Your task to perform on an android device: toggle priority inbox in the gmail app Image 0: 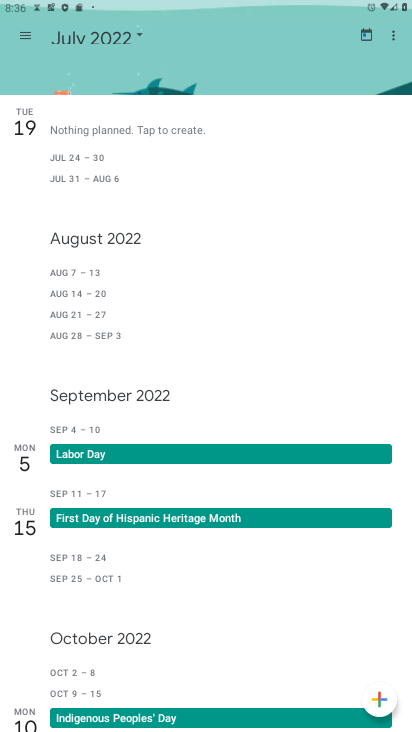
Step 0: drag from (348, 420) to (411, 112)
Your task to perform on an android device: toggle priority inbox in the gmail app Image 1: 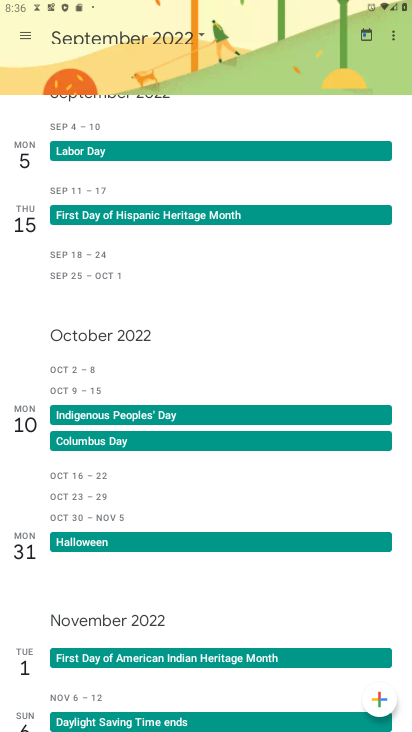
Step 1: press home button
Your task to perform on an android device: toggle priority inbox in the gmail app Image 2: 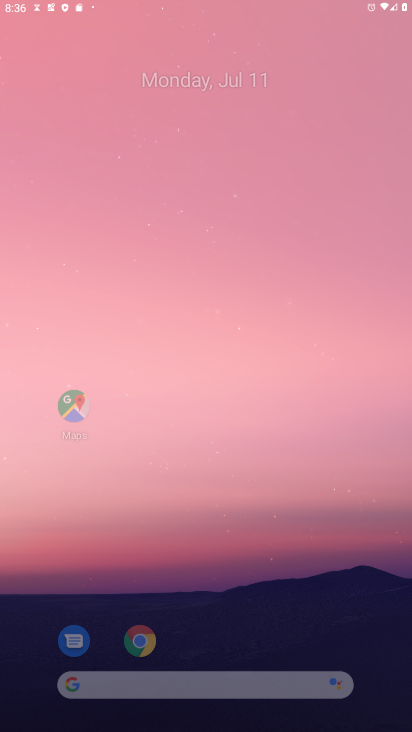
Step 2: drag from (247, 591) to (332, 408)
Your task to perform on an android device: toggle priority inbox in the gmail app Image 3: 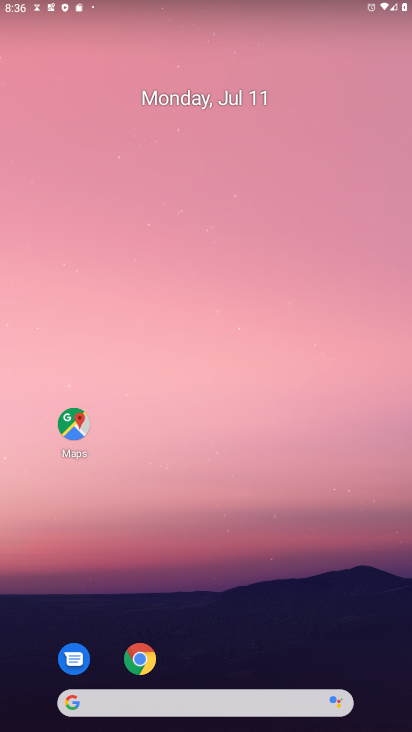
Step 3: drag from (238, 639) to (286, 116)
Your task to perform on an android device: toggle priority inbox in the gmail app Image 4: 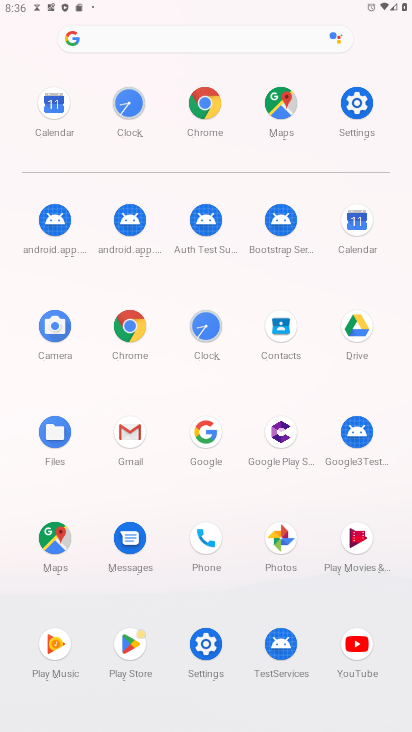
Step 4: click (128, 431)
Your task to perform on an android device: toggle priority inbox in the gmail app Image 5: 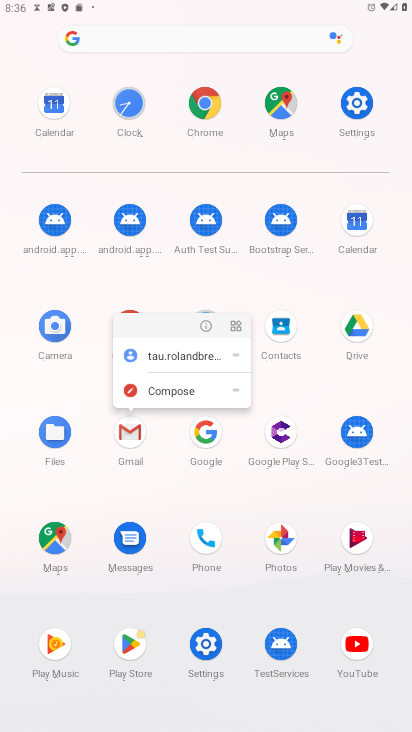
Step 5: click (204, 329)
Your task to perform on an android device: toggle priority inbox in the gmail app Image 6: 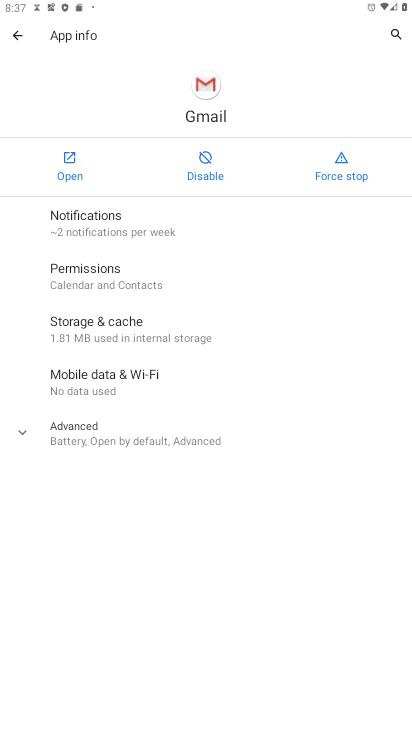
Step 6: click (66, 151)
Your task to perform on an android device: toggle priority inbox in the gmail app Image 7: 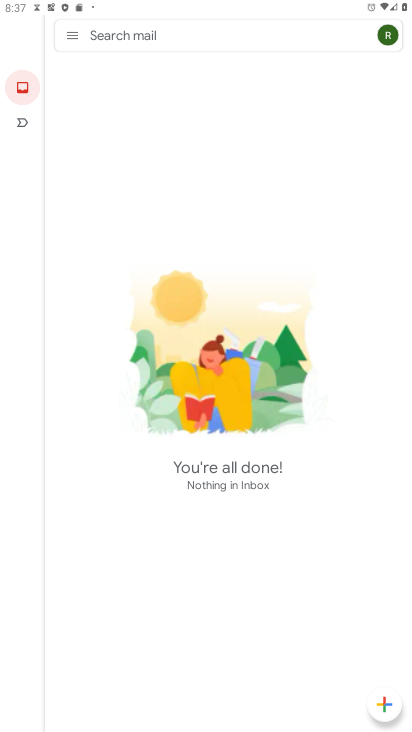
Step 7: click (79, 39)
Your task to perform on an android device: toggle priority inbox in the gmail app Image 8: 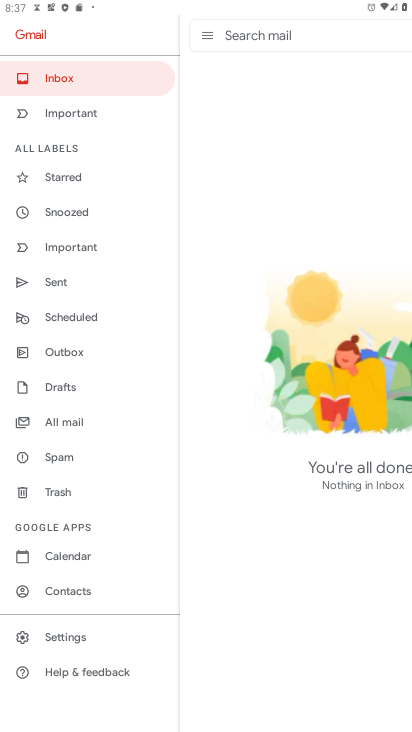
Step 8: click (81, 632)
Your task to perform on an android device: toggle priority inbox in the gmail app Image 9: 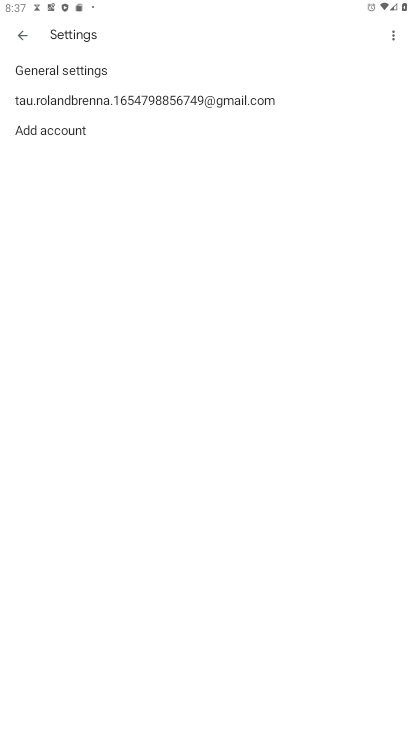
Step 9: click (183, 102)
Your task to perform on an android device: toggle priority inbox in the gmail app Image 10: 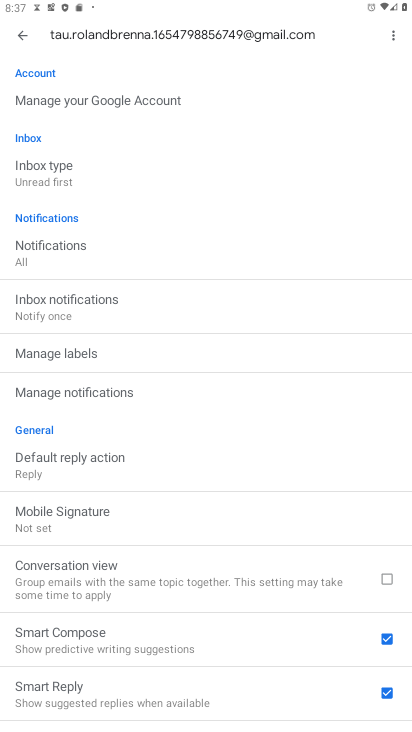
Step 10: click (164, 163)
Your task to perform on an android device: toggle priority inbox in the gmail app Image 11: 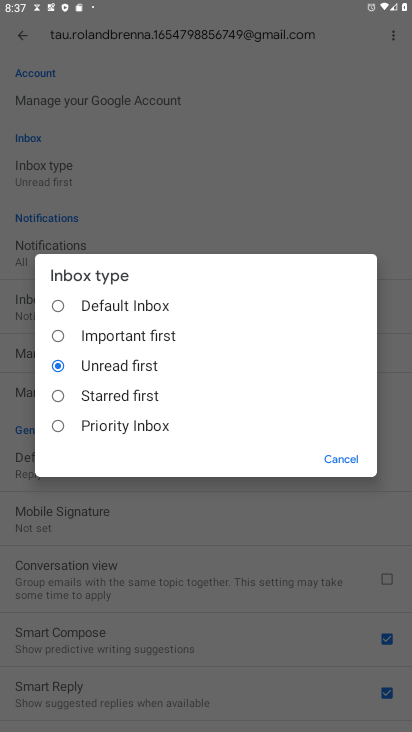
Step 11: click (88, 424)
Your task to perform on an android device: toggle priority inbox in the gmail app Image 12: 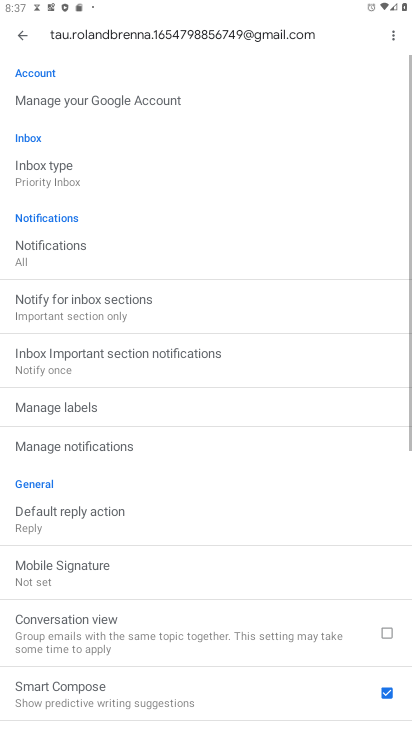
Step 12: task complete